Your task to perform on an android device: Check my email inbox Image 0: 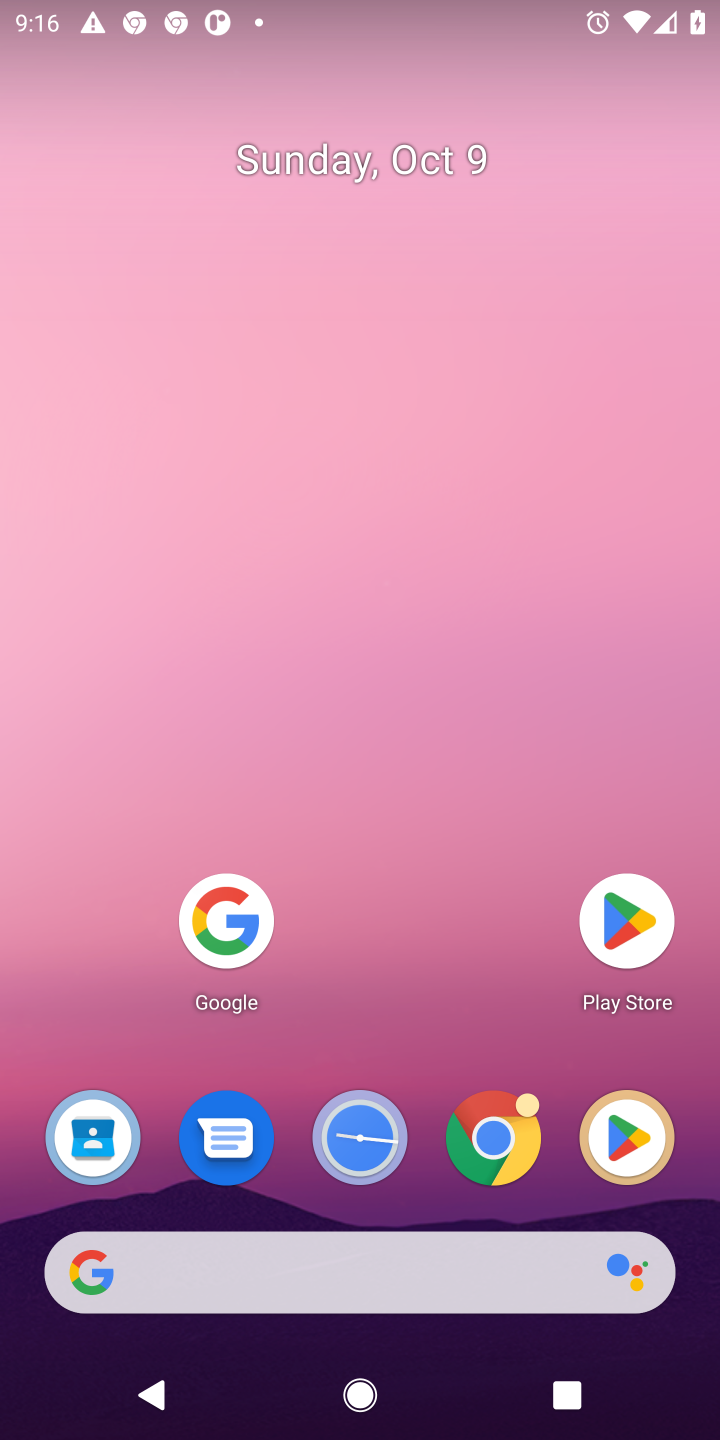
Step 0: drag from (372, 798) to (372, 430)
Your task to perform on an android device: Check my email inbox Image 1: 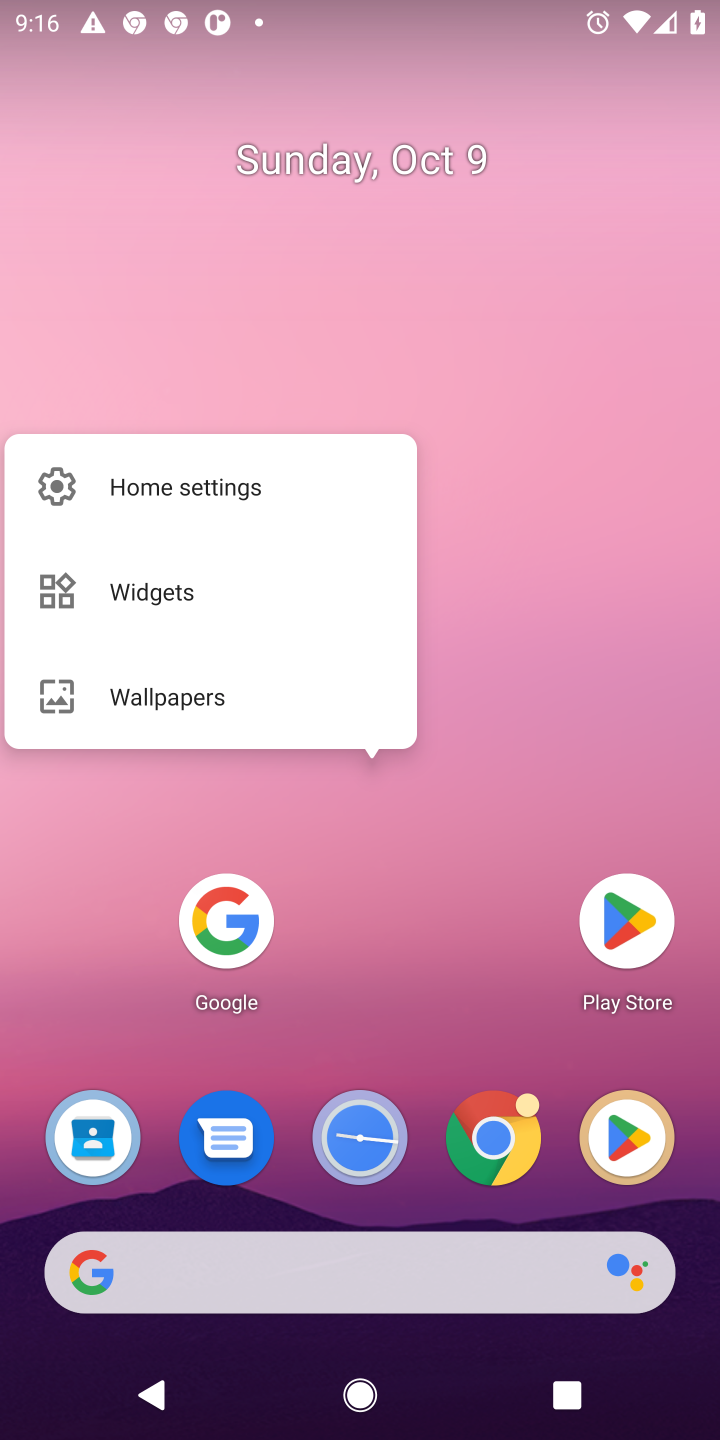
Step 1: drag from (416, 915) to (423, 458)
Your task to perform on an android device: Check my email inbox Image 2: 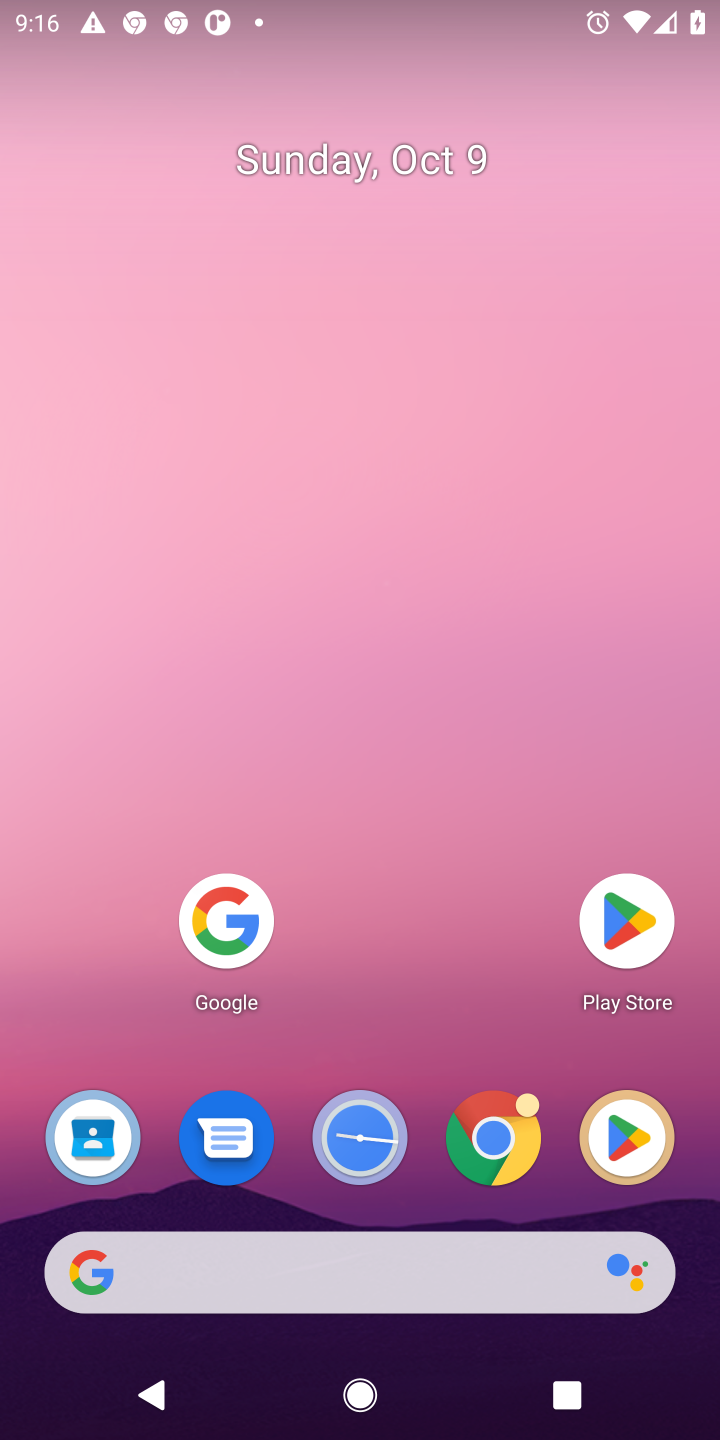
Step 2: drag from (414, 1161) to (409, 358)
Your task to perform on an android device: Check my email inbox Image 3: 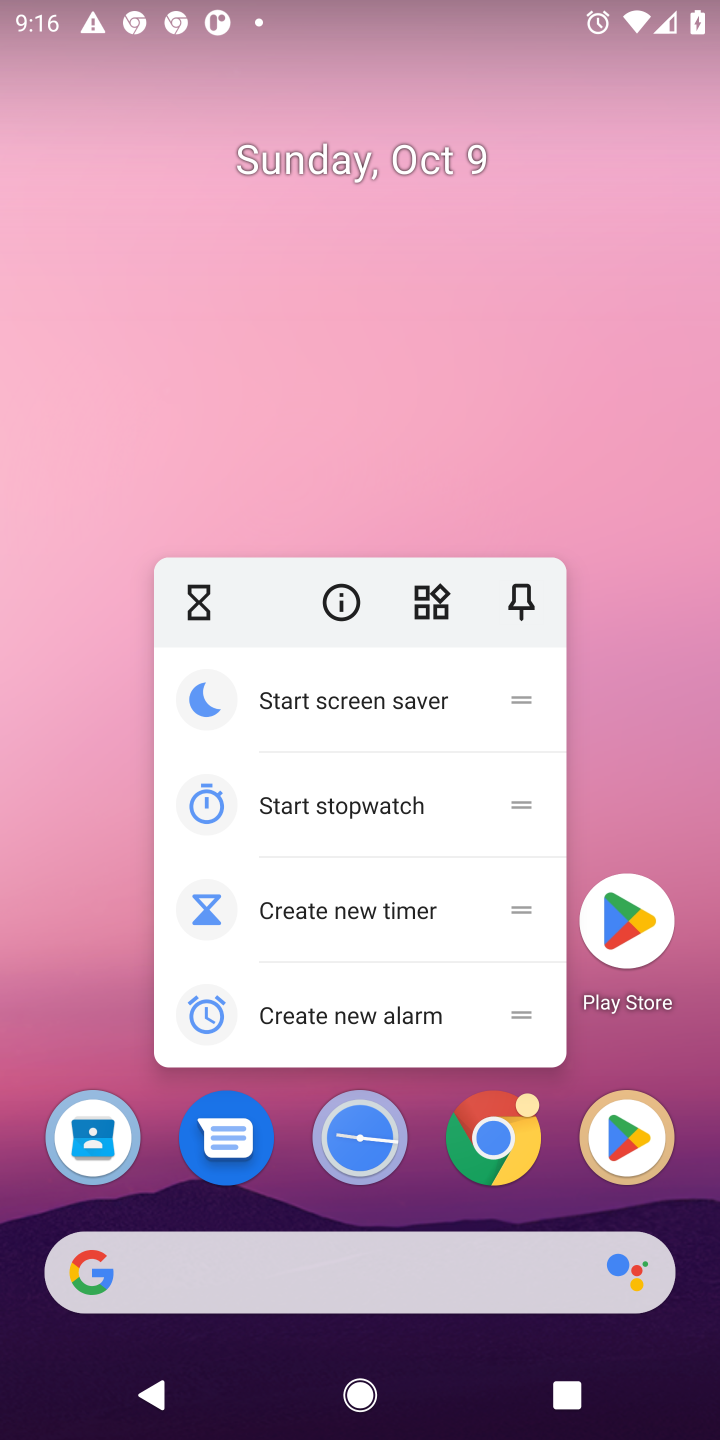
Step 3: click (279, 1200)
Your task to perform on an android device: Check my email inbox Image 4: 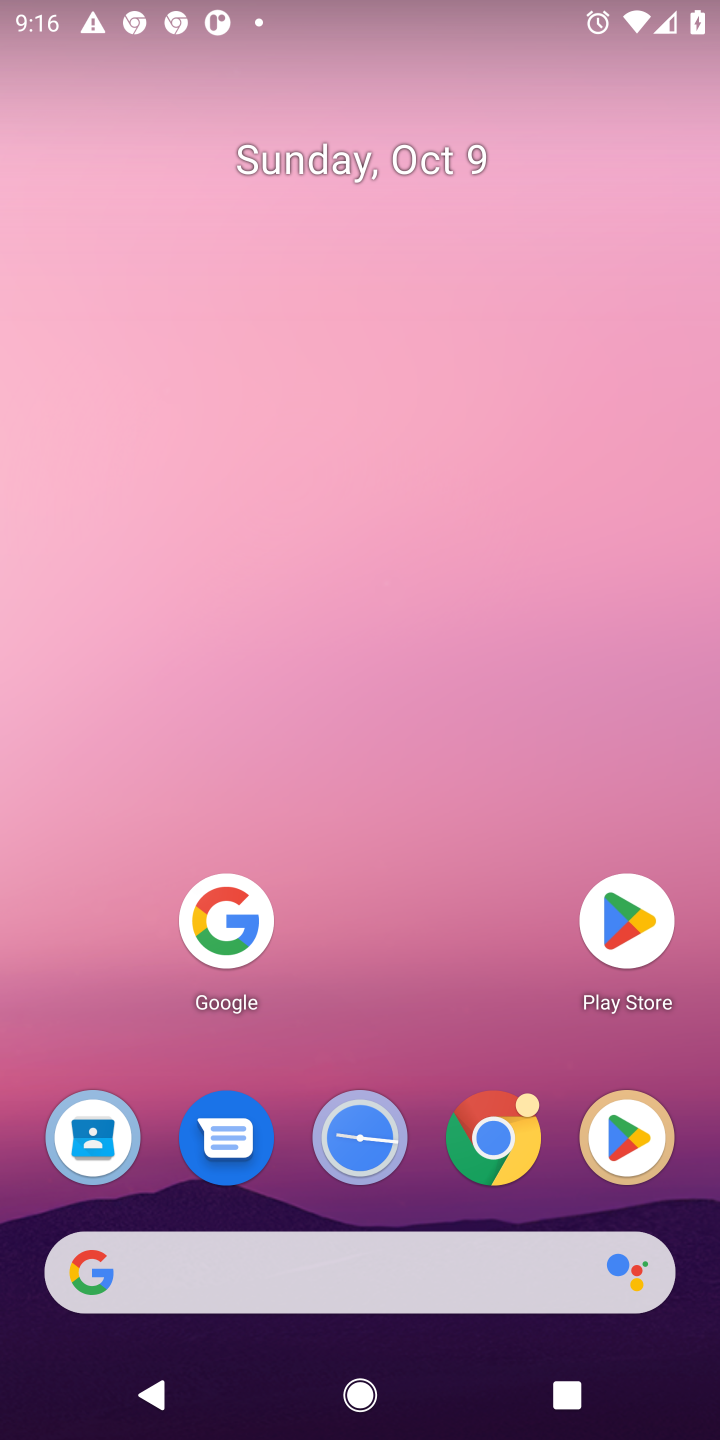
Step 4: drag from (283, 1231) to (314, 695)
Your task to perform on an android device: Check my email inbox Image 5: 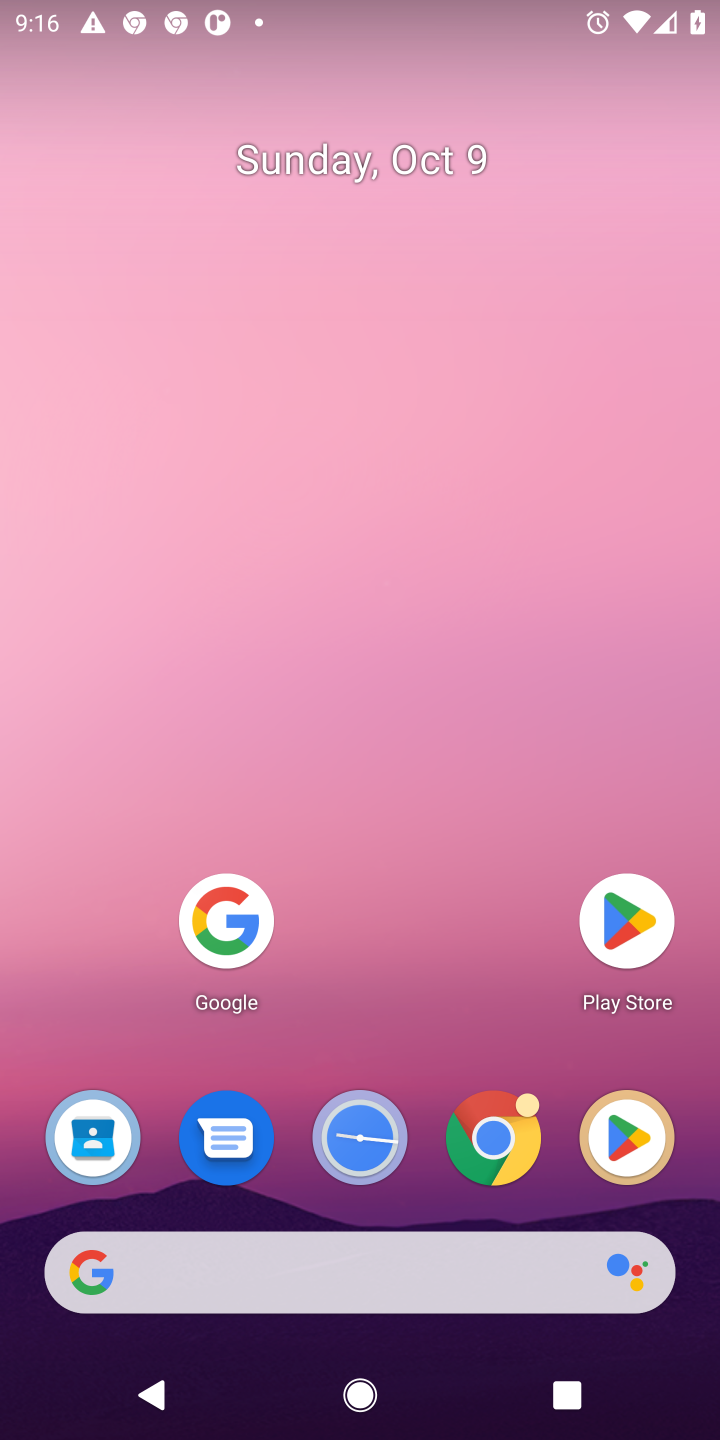
Step 5: click (394, 254)
Your task to perform on an android device: Check my email inbox Image 6: 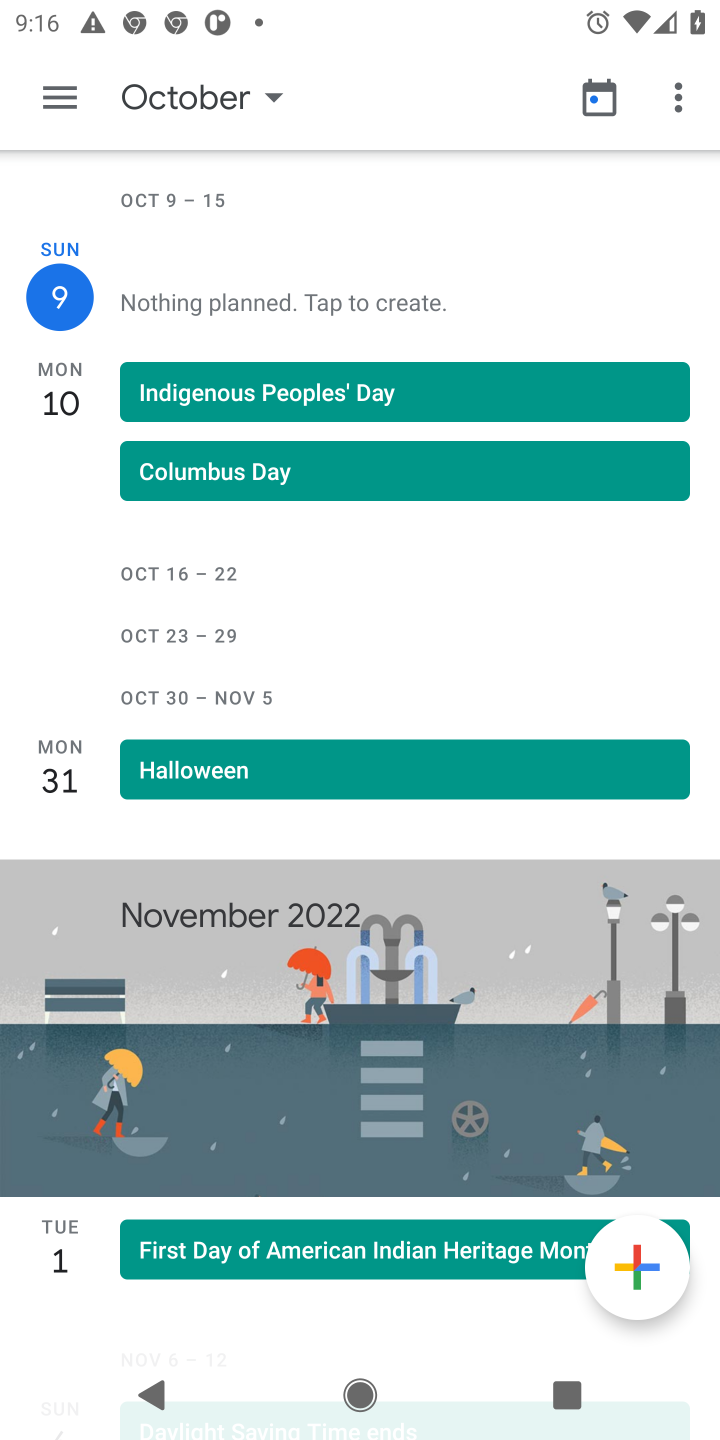
Step 6: drag from (324, 1227) to (383, 743)
Your task to perform on an android device: Check my email inbox Image 7: 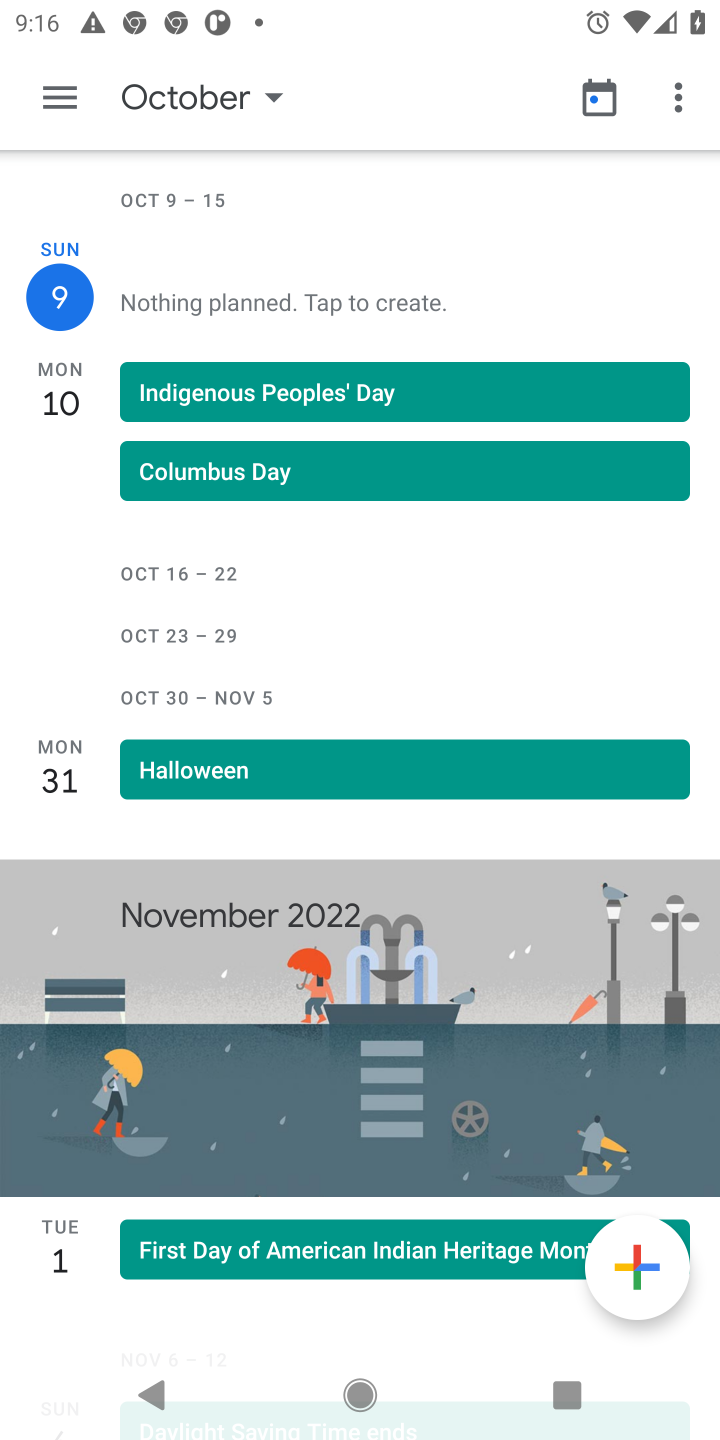
Step 7: press home button
Your task to perform on an android device: Check my email inbox Image 8: 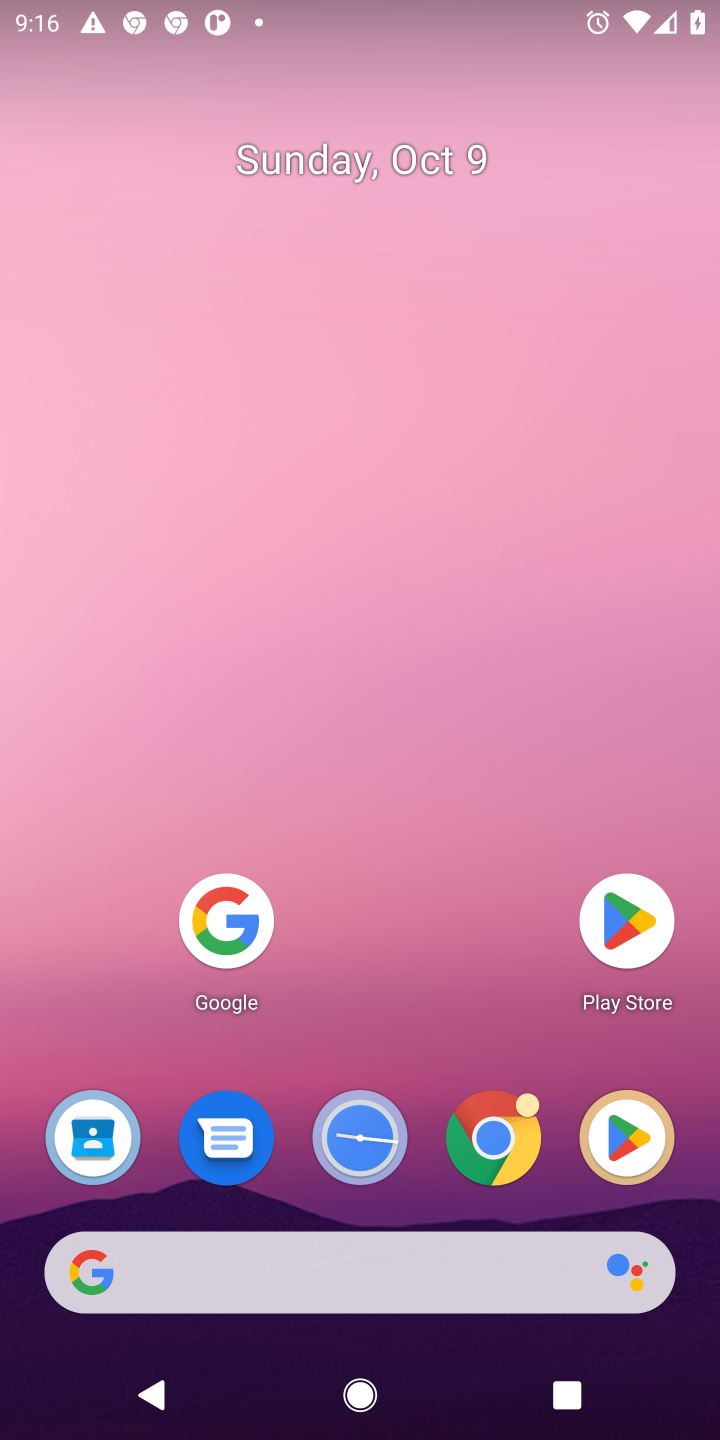
Step 8: click (285, 371)
Your task to perform on an android device: Check my email inbox Image 9: 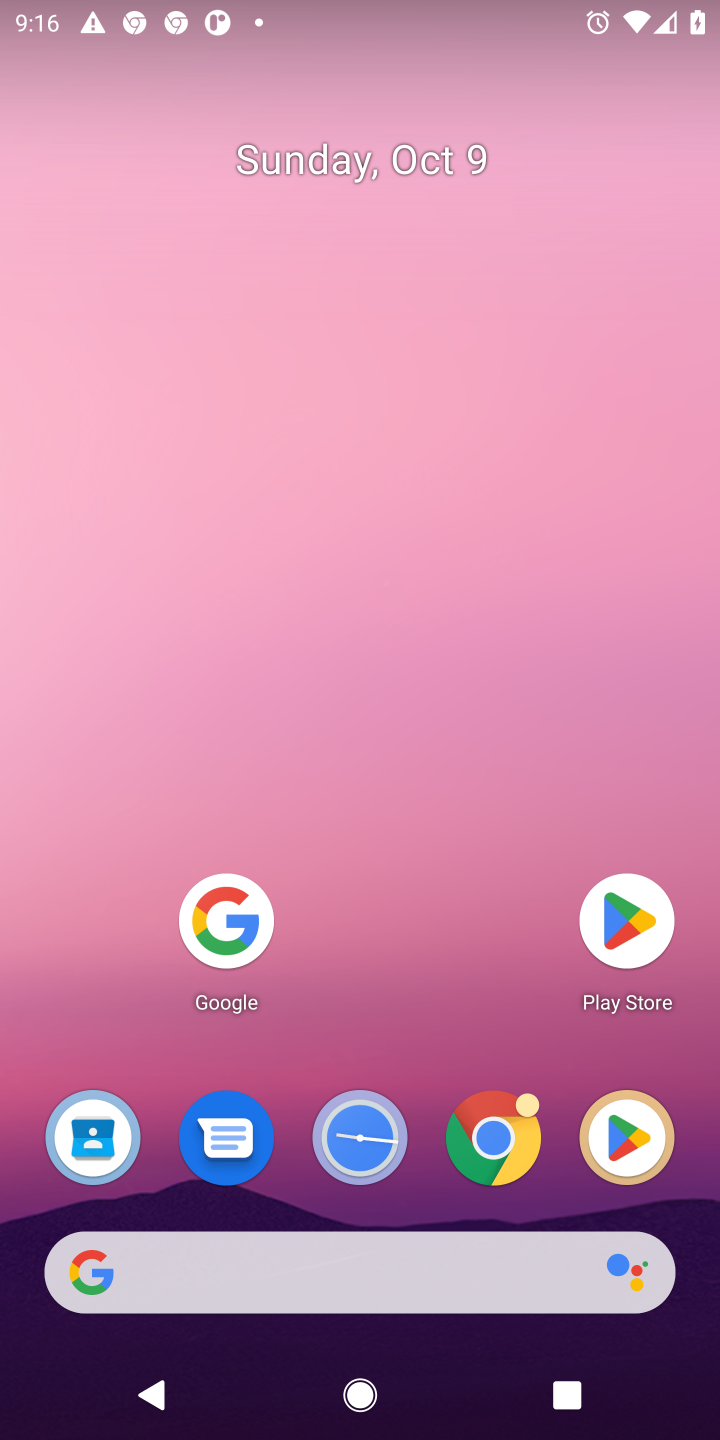
Step 9: drag from (325, 1022) to (334, 456)
Your task to perform on an android device: Check my email inbox Image 10: 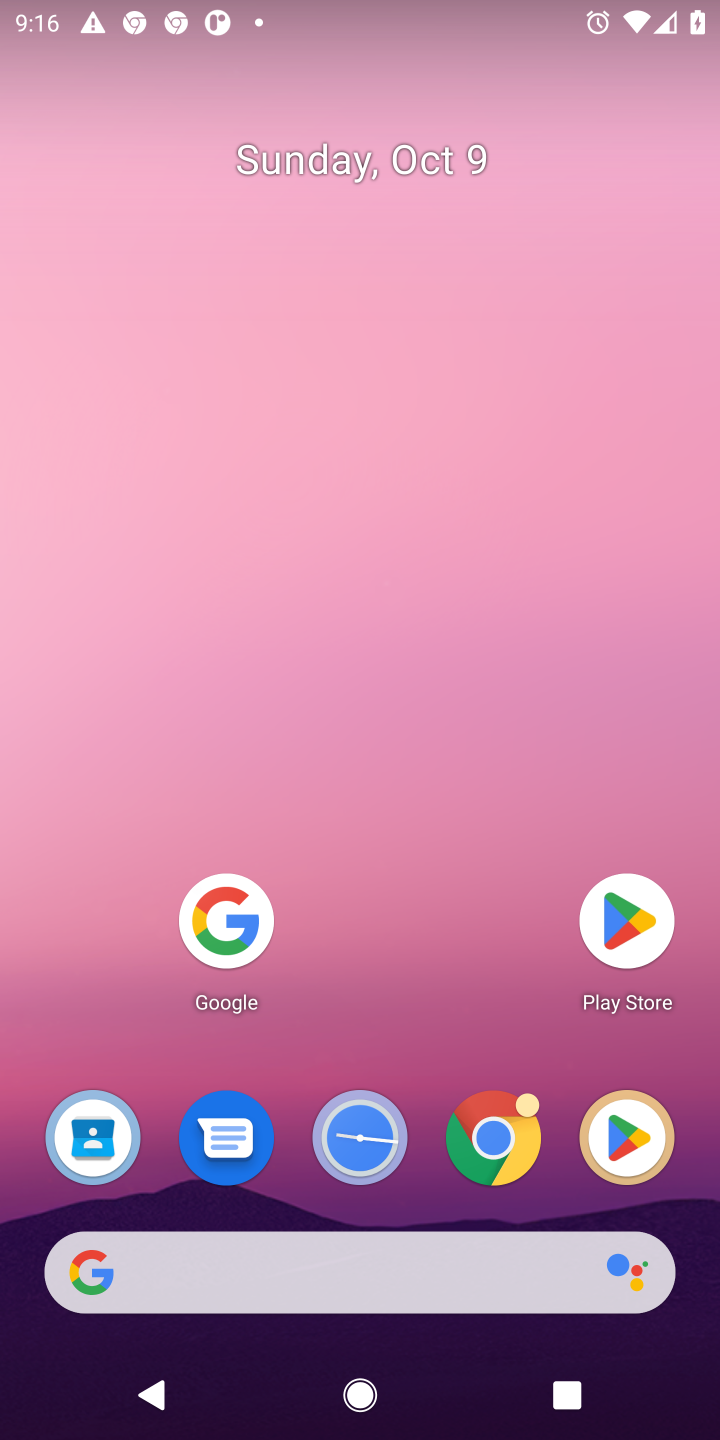
Step 10: drag from (312, 1225) to (328, 91)
Your task to perform on an android device: Check my email inbox Image 11: 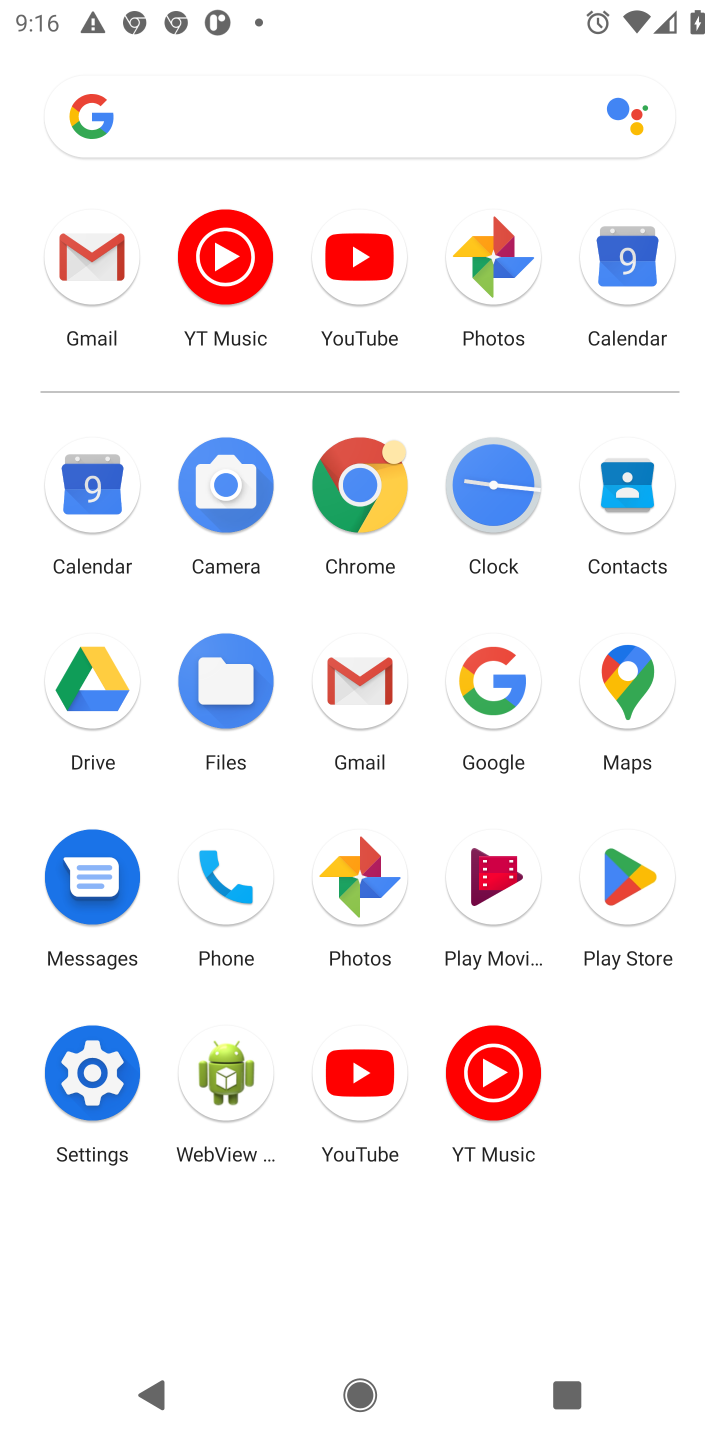
Step 11: click (77, 245)
Your task to perform on an android device: Check my email inbox Image 12: 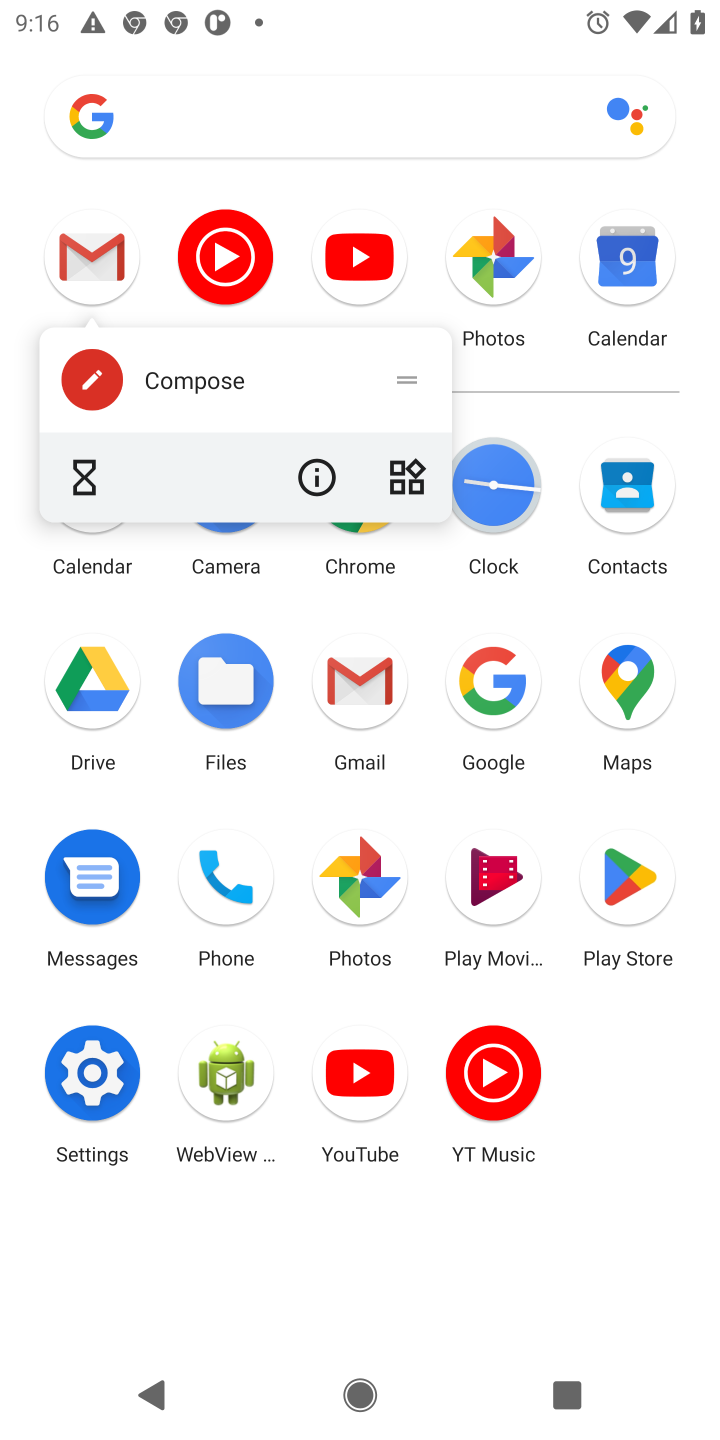
Step 12: click (85, 265)
Your task to perform on an android device: Check my email inbox Image 13: 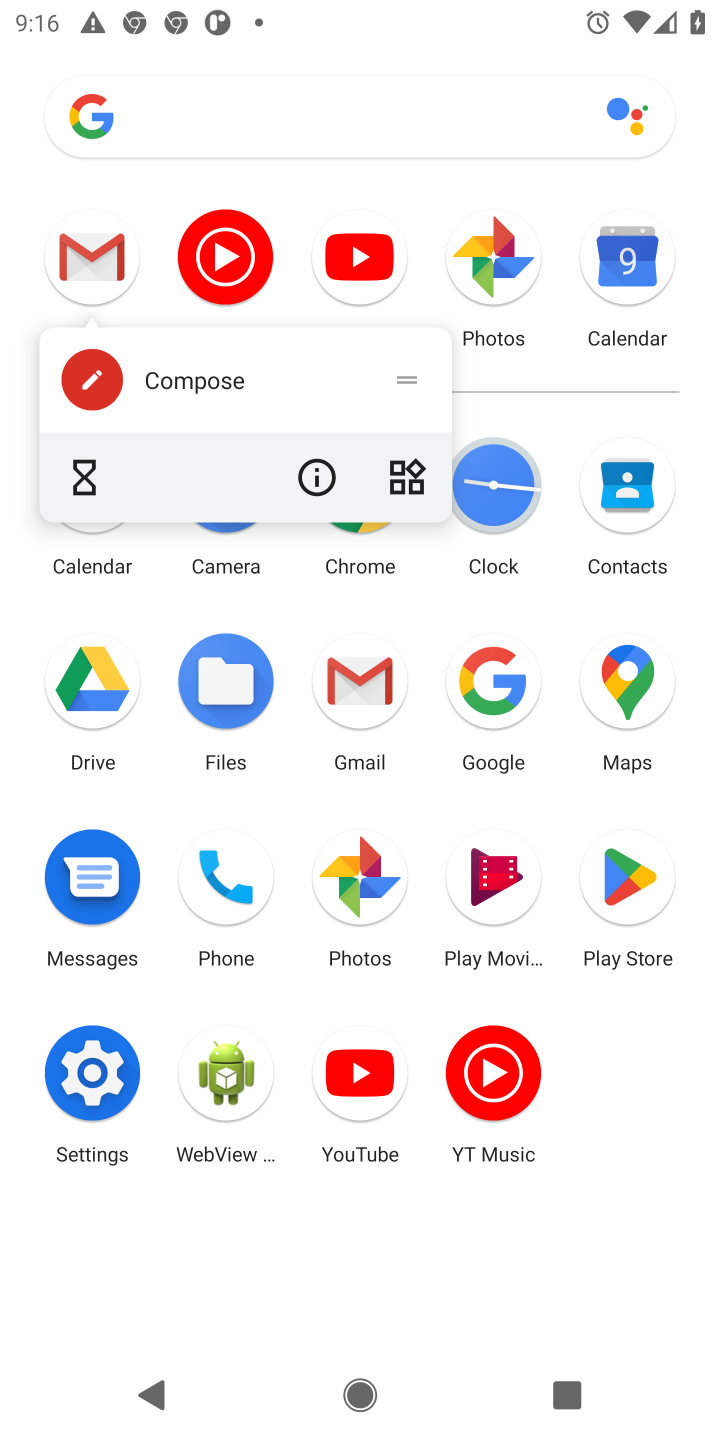
Step 13: click (85, 248)
Your task to perform on an android device: Check my email inbox Image 14: 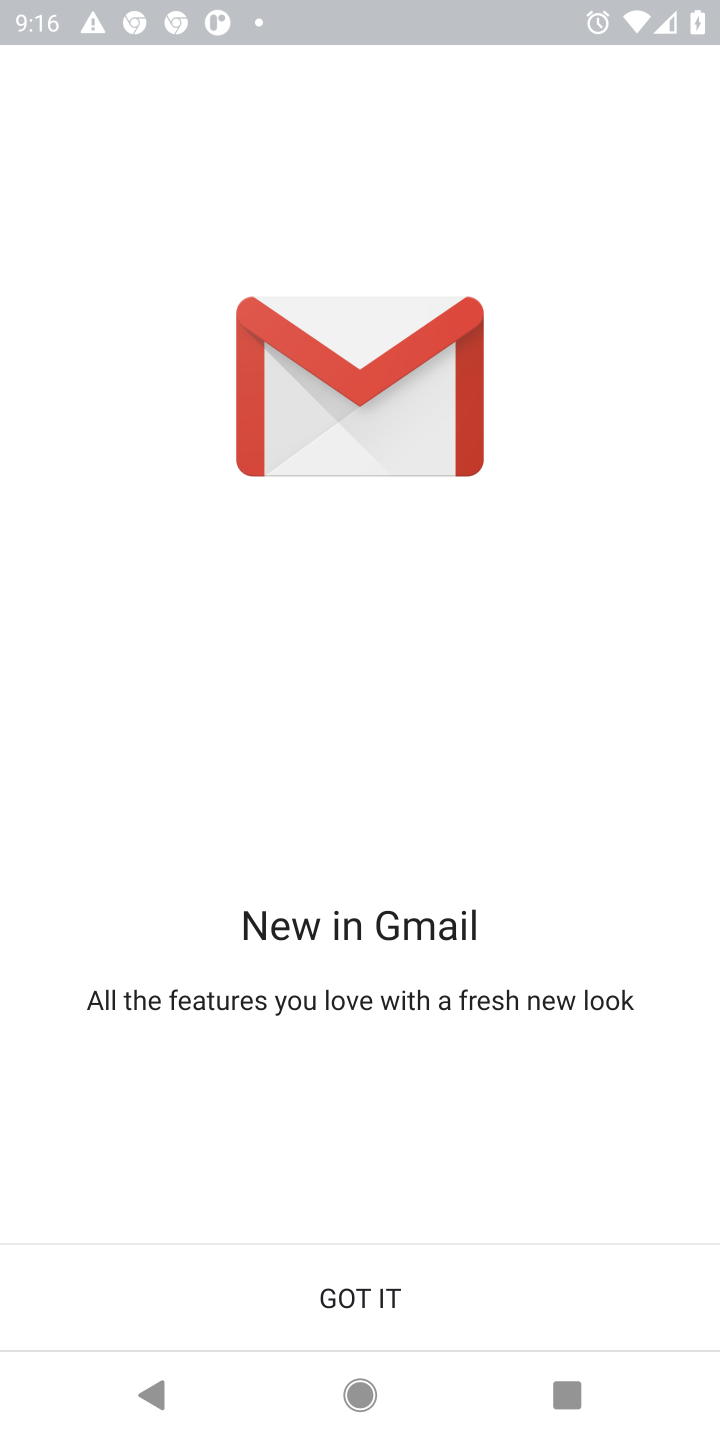
Step 14: click (388, 1275)
Your task to perform on an android device: Check my email inbox Image 15: 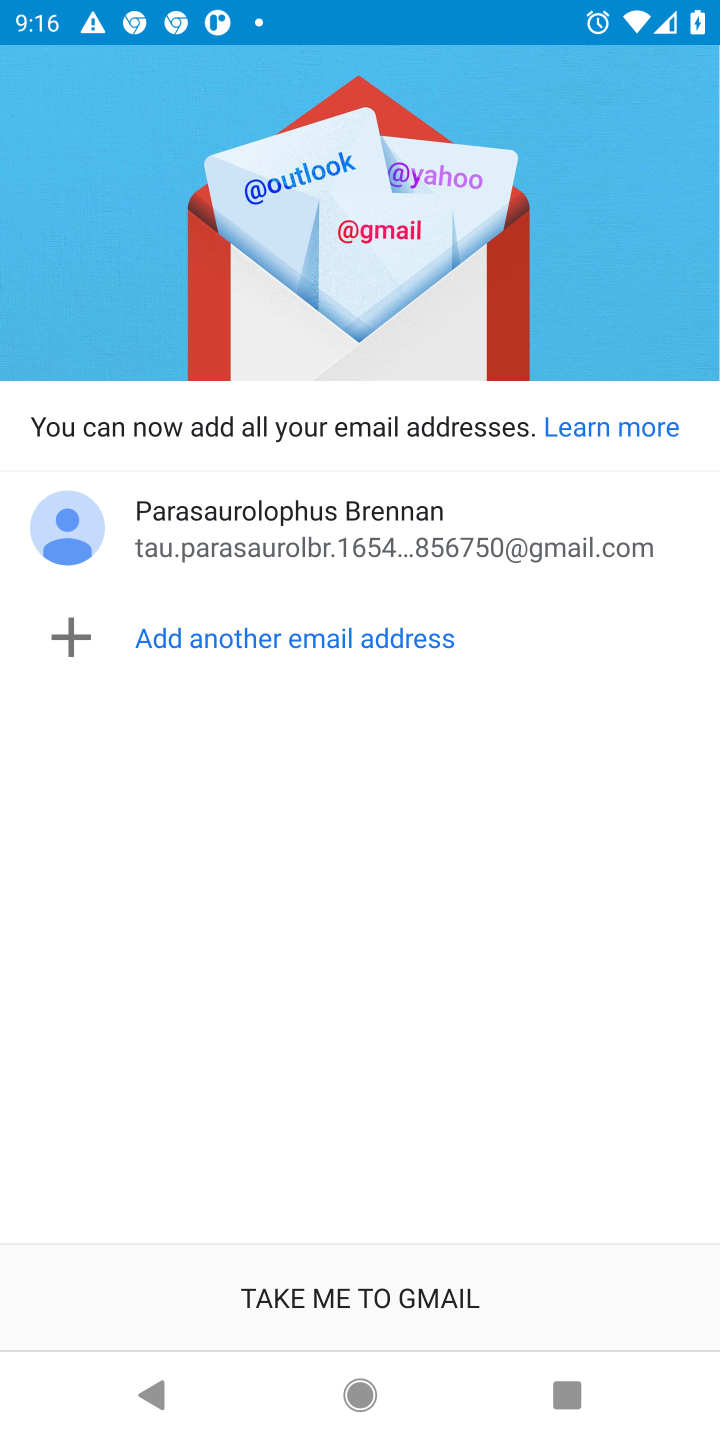
Step 15: click (383, 1327)
Your task to perform on an android device: Check my email inbox Image 16: 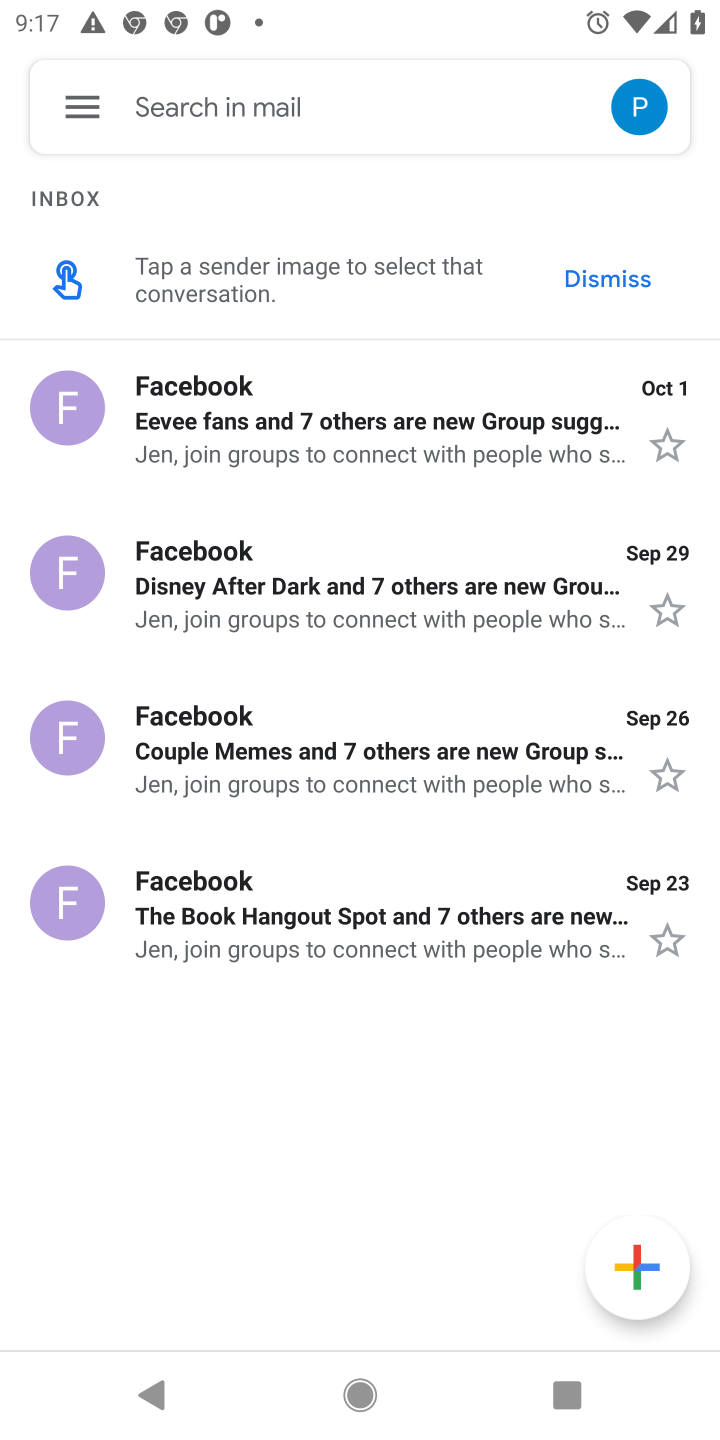
Step 16: click (88, 117)
Your task to perform on an android device: Check my email inbox Image 17: 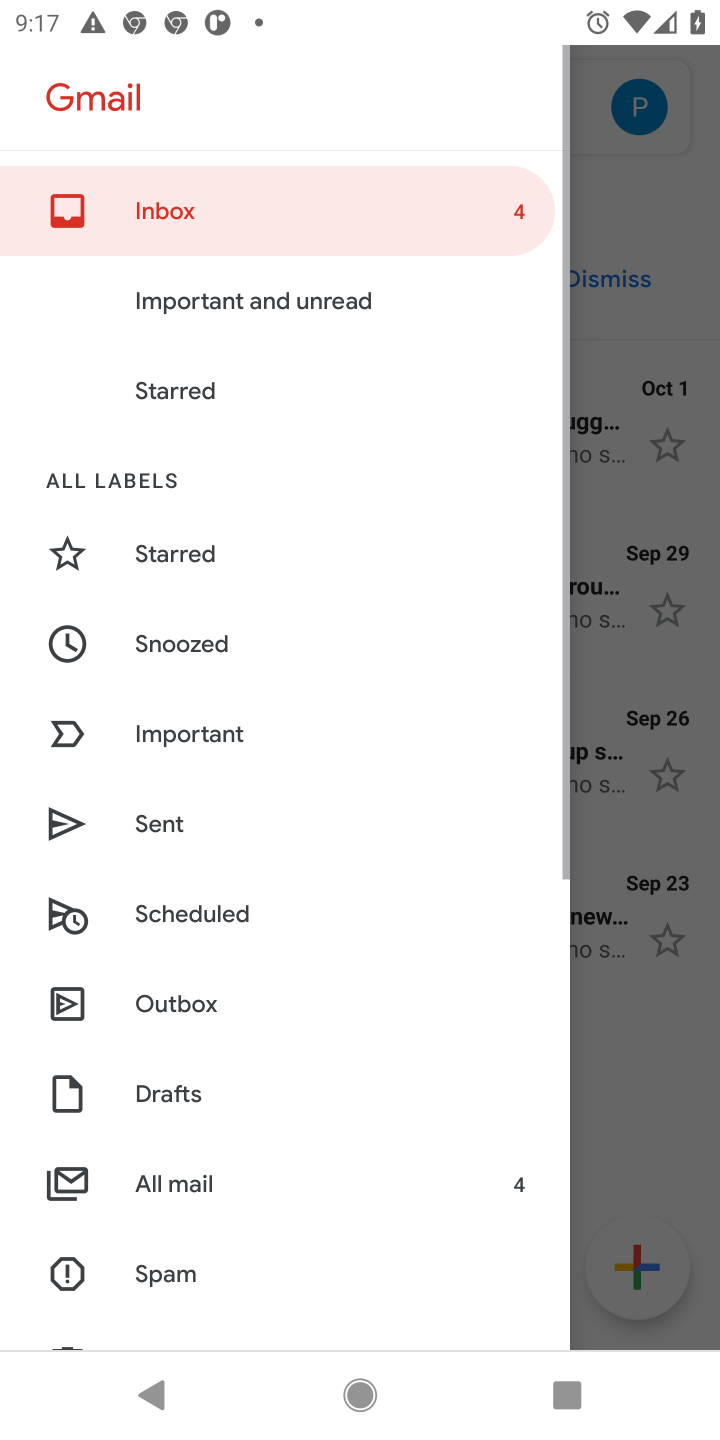
Step 17: click (195, 205)
Your task to perform on an android device: Check my email inbox Image 18: 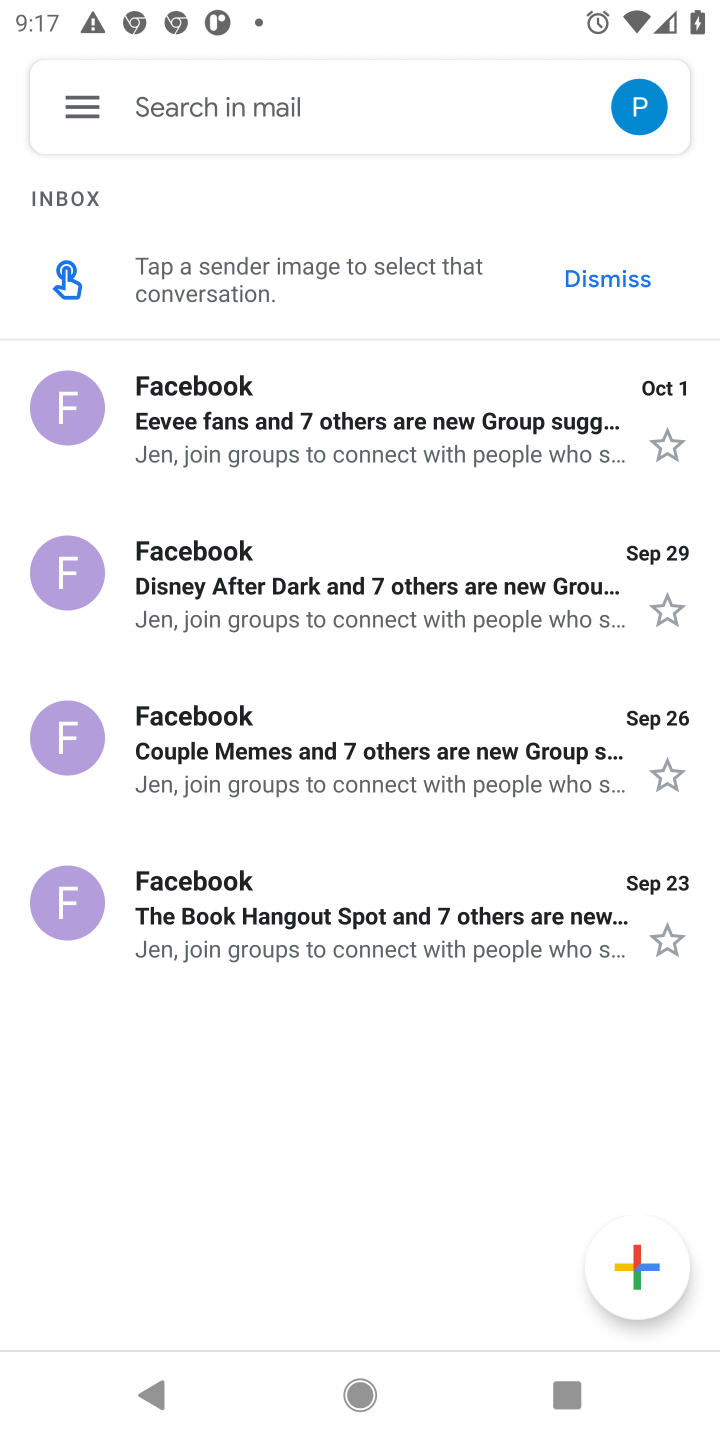
Step 18: task complete